Your task to perform on an android device: open app "Indeed Job Search" (install if not already installed), go to login, and select forgot password Image 0: 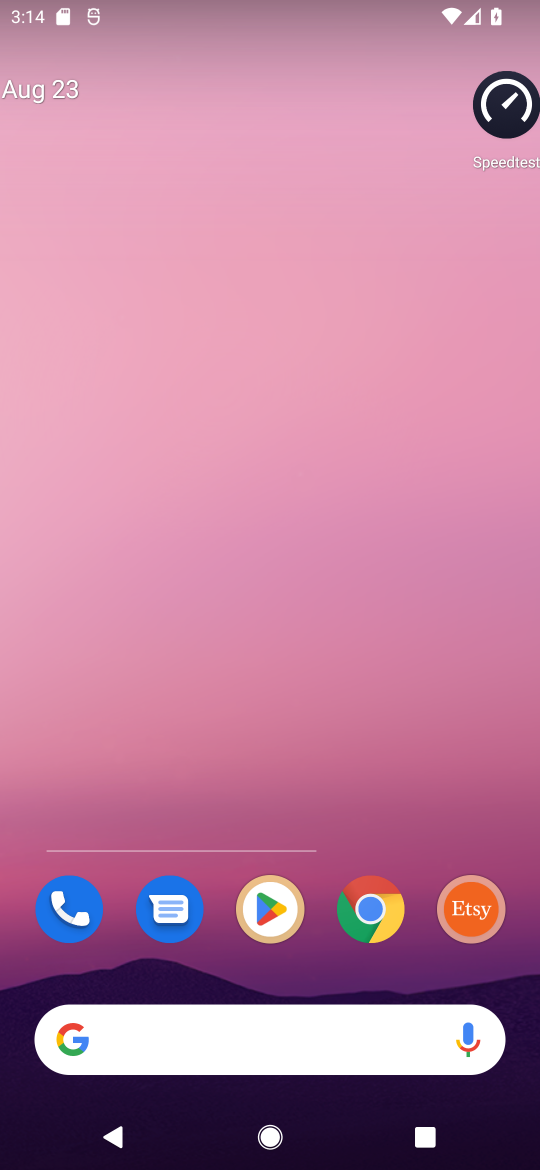
Step 0: press home button
Your task to perform on an android device: open app "Indeed Job Search" (install if not already installed), go to login, and select forgot password Image 1: 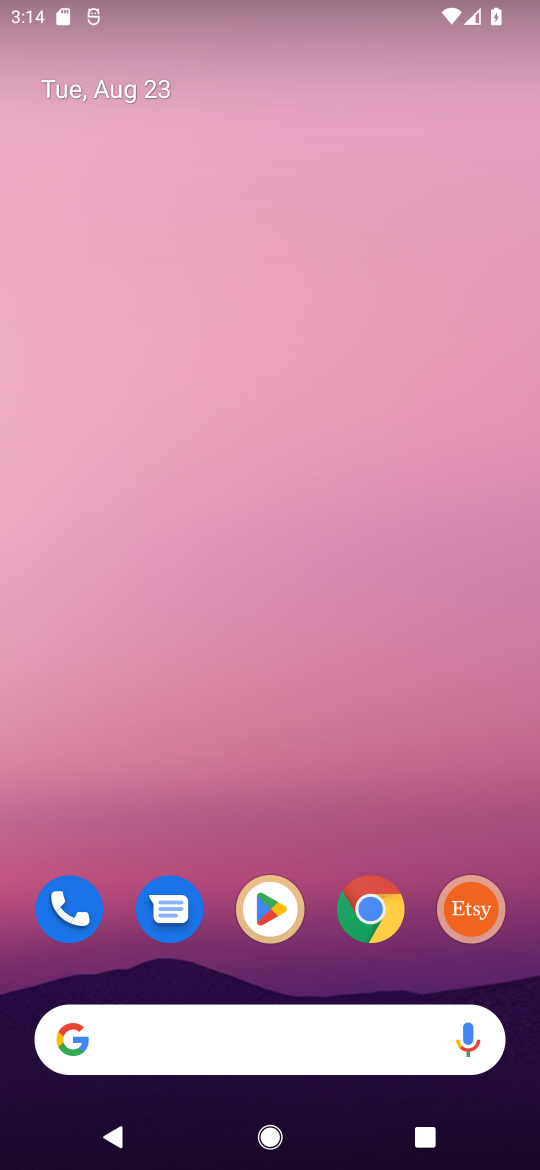
Step 1: click (262, 898)
Your task to perform on an android device: open app "Indeed Job Search" (install if not already installed), go to login, and select forgot password Image 2: 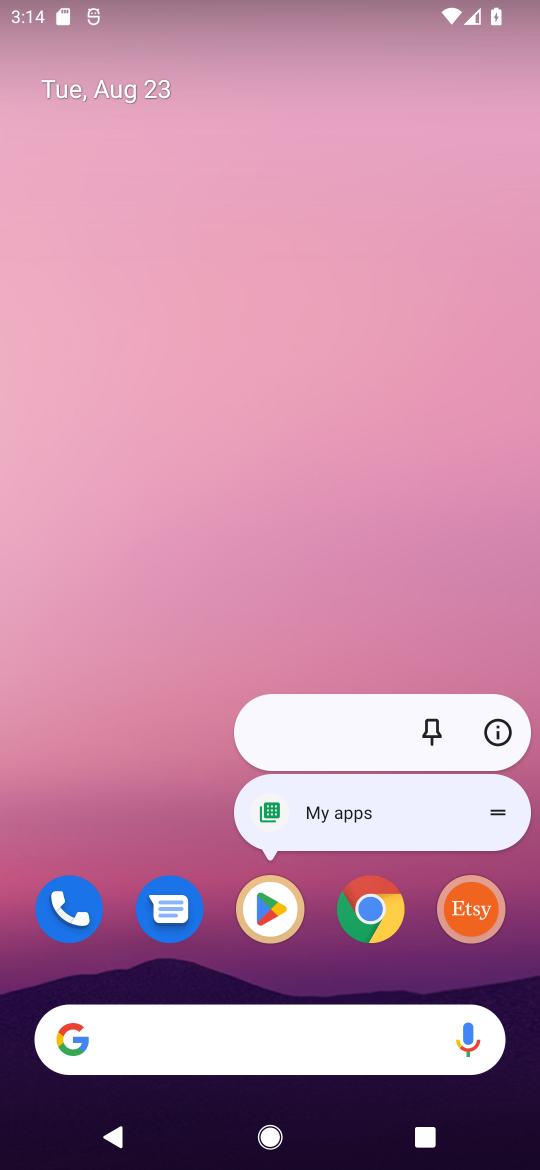
Step 2: click (266, 900)
Your task to perform on an android device: open app "Indeed Job Search" (install if not already installed), go to login, and select forgot password Image 3: 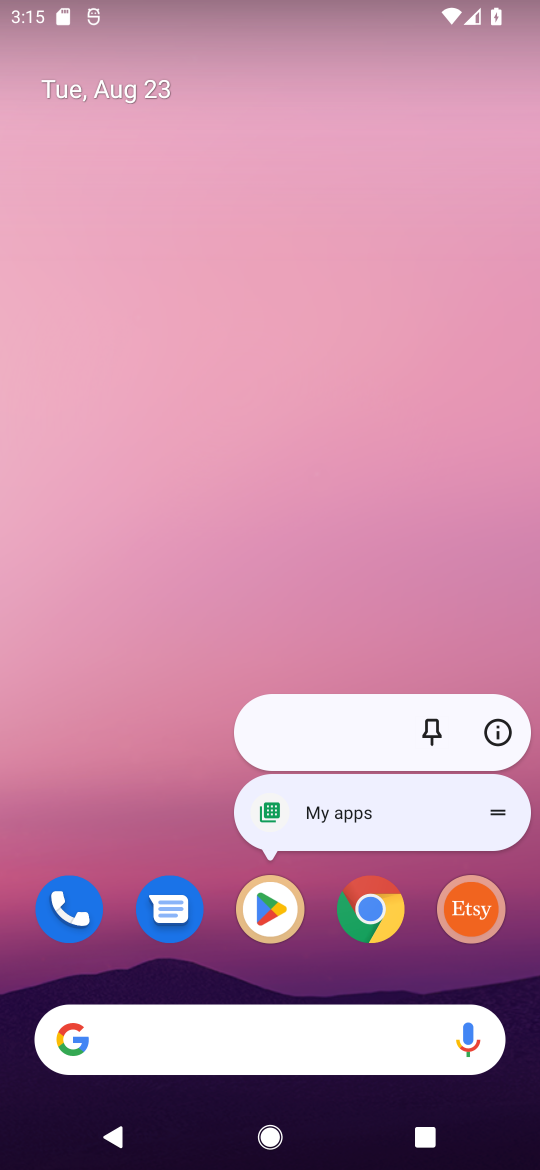
Step 3: click (261, 902)
Your task to perform on an android device: open app "Indeed Job Search" (install if not already installed), go to login, and select forgot password Image 4: 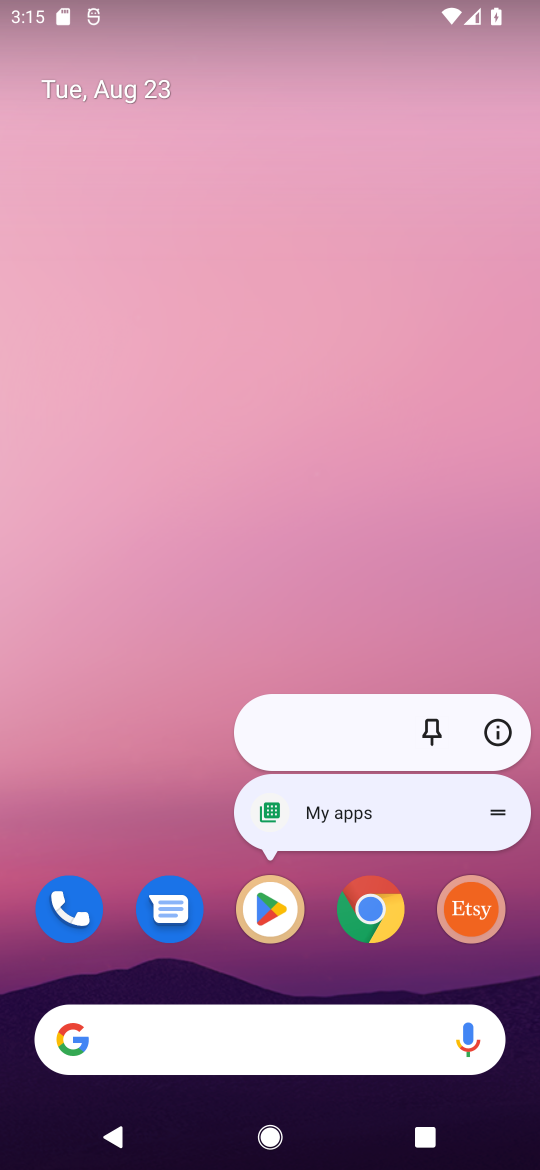
Step 4: click (263, 900)
Your task to perform on an android device: open app "Indeed Job Search" (install if not already installed), go to login, and select forgot password Image 5: 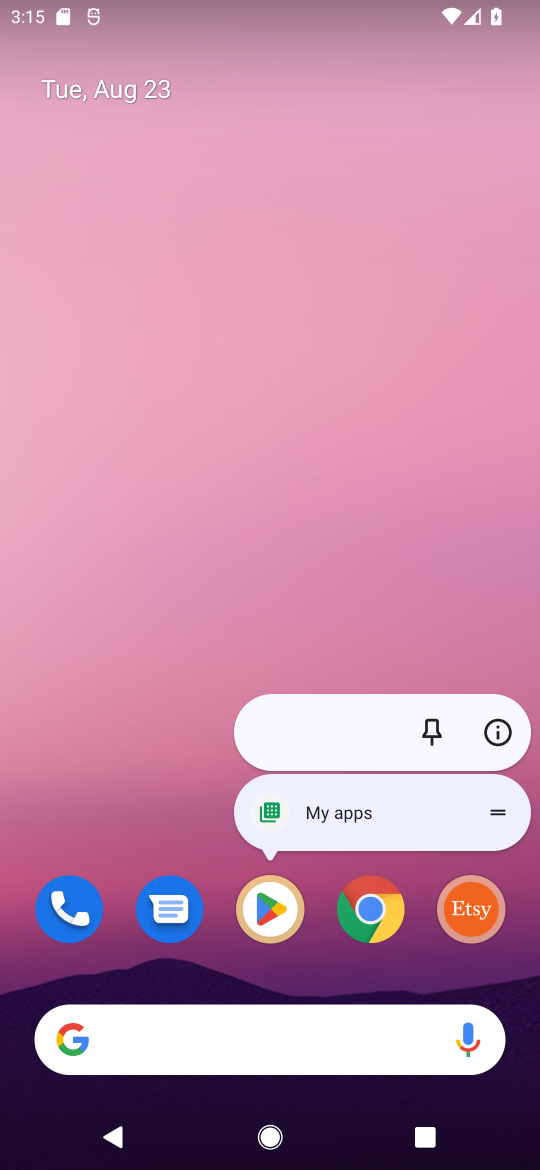
Step 5: click (133, 704)
Your task to perform on an android device: open app "Indeed Job Search" (install if not already installed), go to login, and select forgot password Image 6: 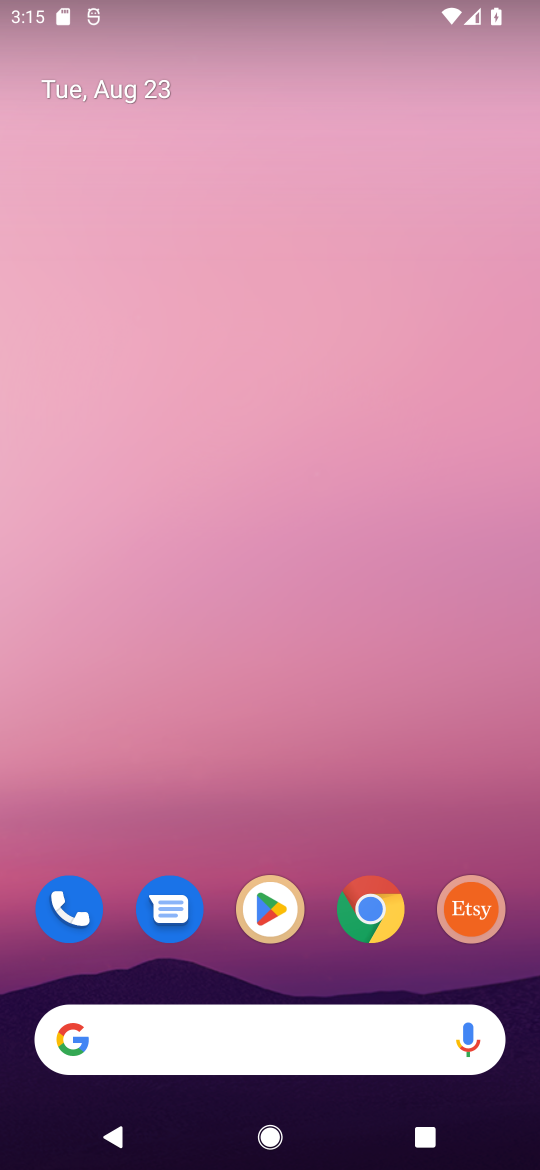
Step 6: click (237, 339)
Your task to perform on an android device: open app "Indeed Job Search" (install if not already installed), go to login, and select forgot password Image 7: 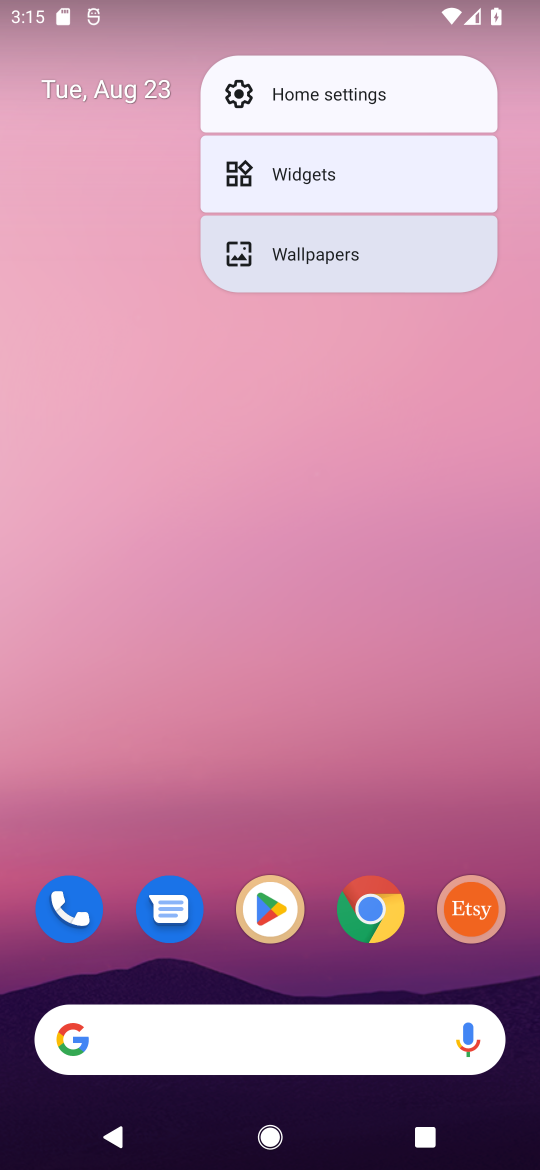
Step 7: click (262, 903)
Your task to perform on an android device: open app "Indeed Job Search" (install if not already installed), go to login, and select forgot password Image 8: 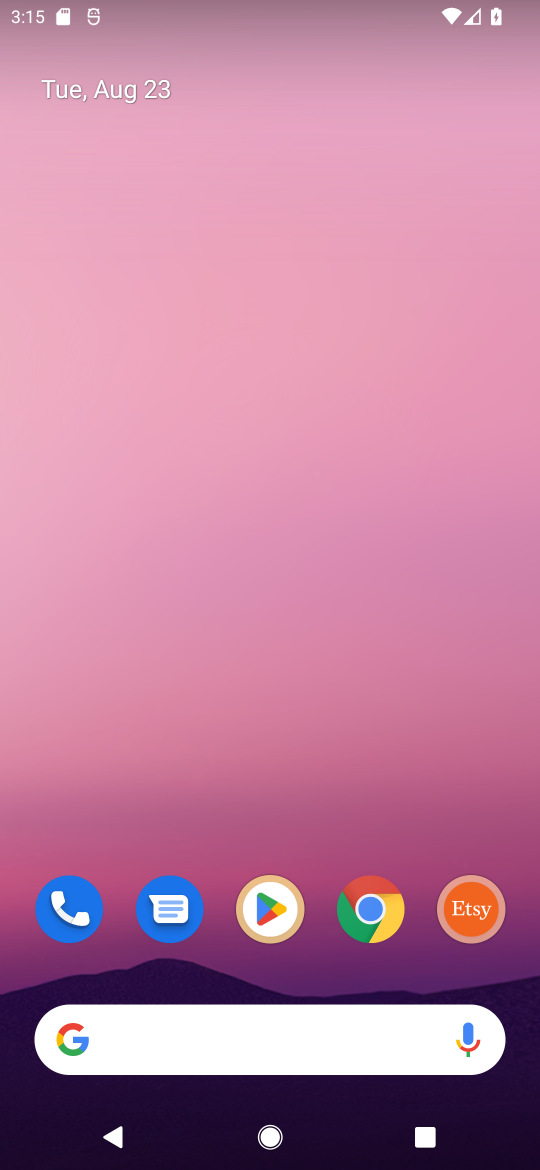
Step 8: click (261, 903)
Your task to perform on an android device: open app "Indeed Job Search" (install if not already installed), go to login, and select forgot password Image 9: 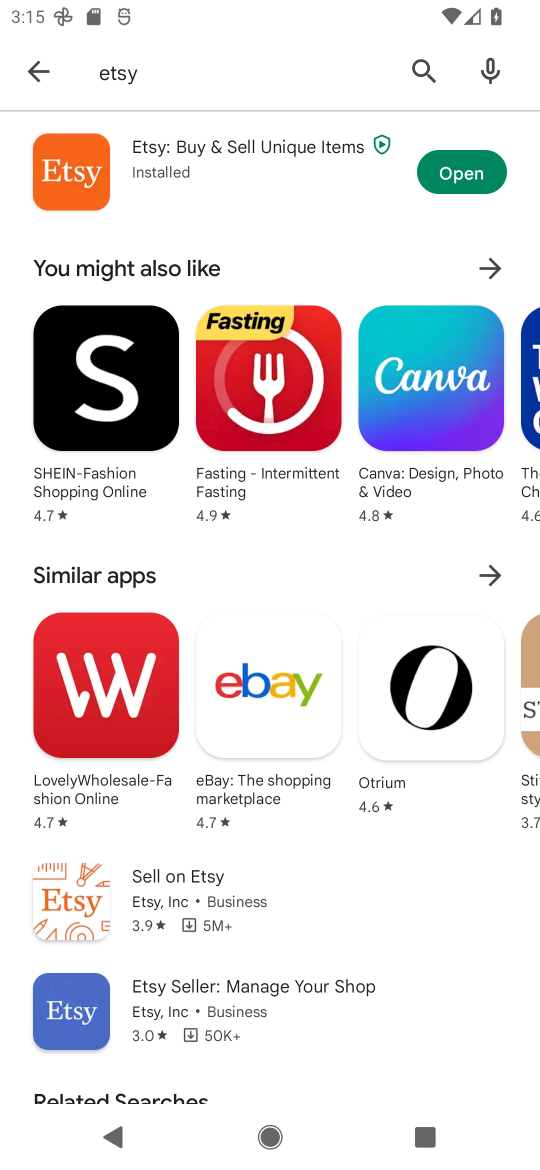
Step 9: click (418, 67)
Your task to perform on an android device: open app "Indeed Job Search" (install if not already installed), go to login, and select forgot password Image 10: 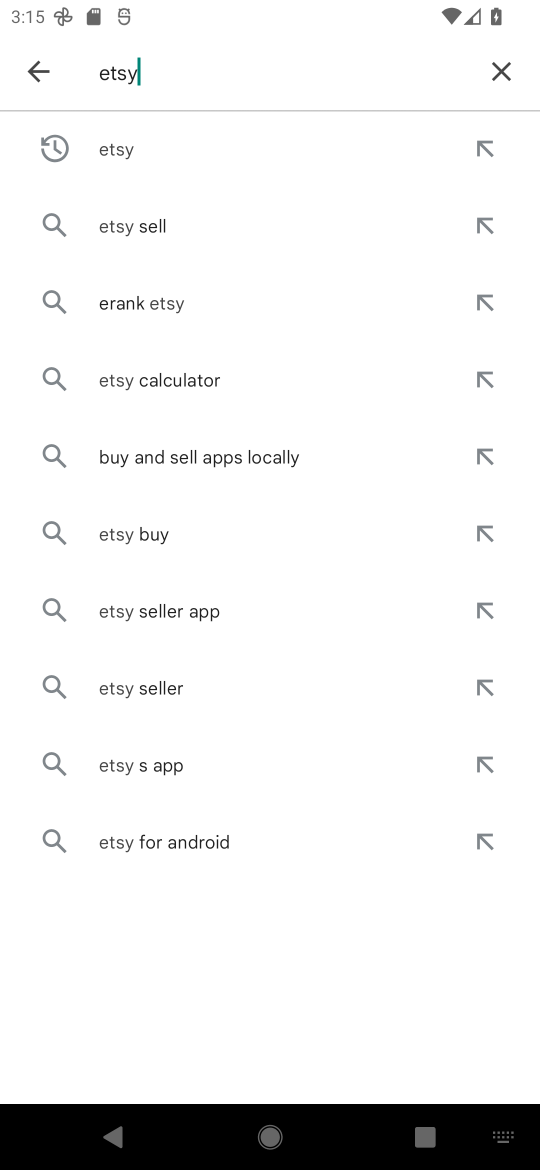
Step 10: click (495, 64)
Your task to perform on an android device: open app "Indeed Job Search" (install if not already installed), go to login, and select forgot password Image 11: 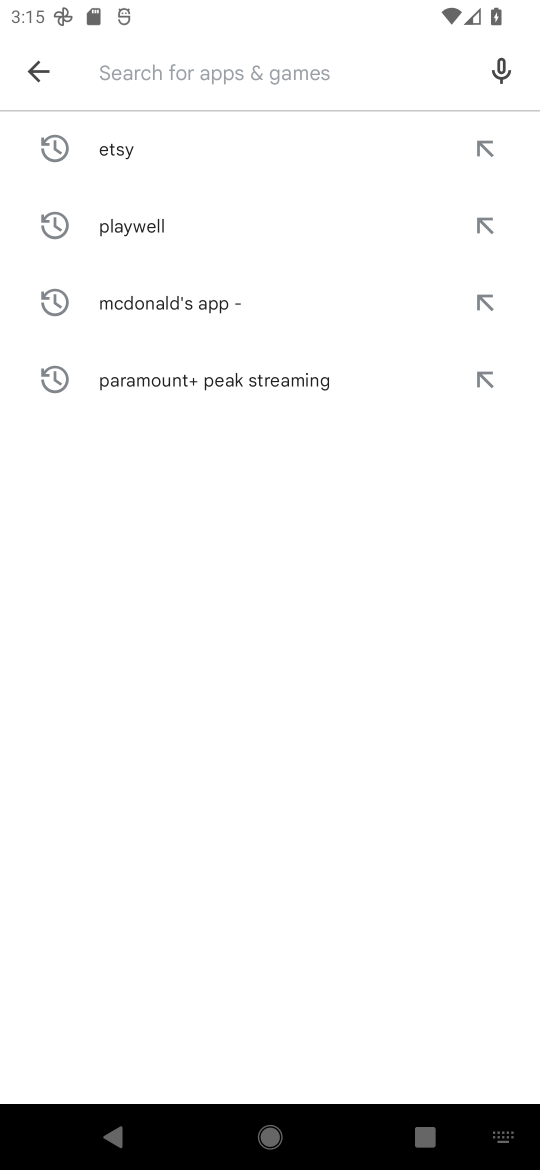
Step 11: type "Indeed Job Search"
Your task to perform on an android device: open app "Indeed Job Search" (install if not already installed), go to login, and select forgot password Image 12: 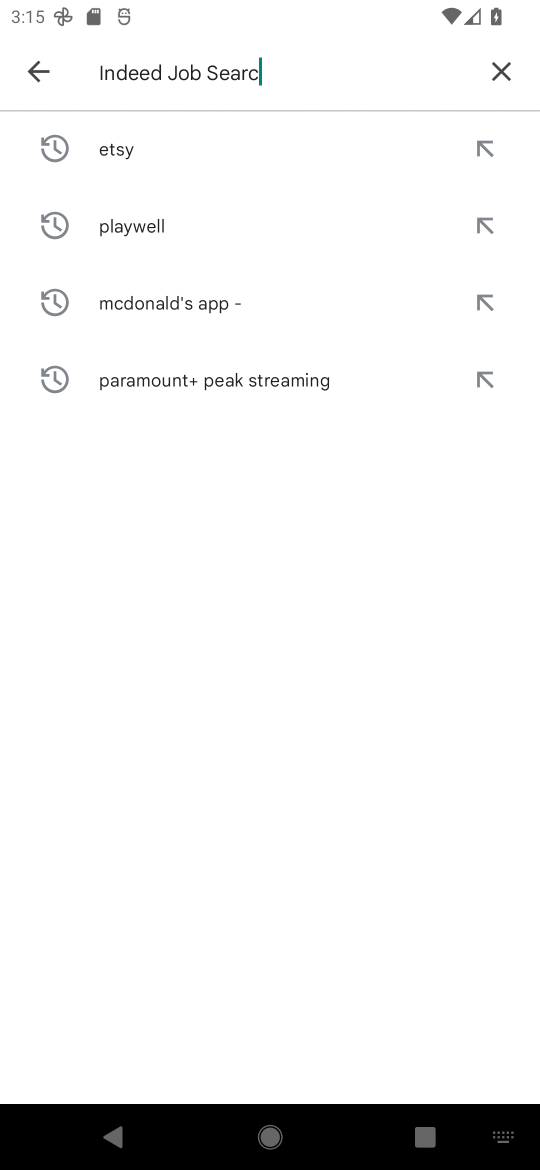
Step 12: type ""
Your task to perform on an android device: open app "Indeed Job Search" (install if not already installed), go to login, and select forgot password Image 13: 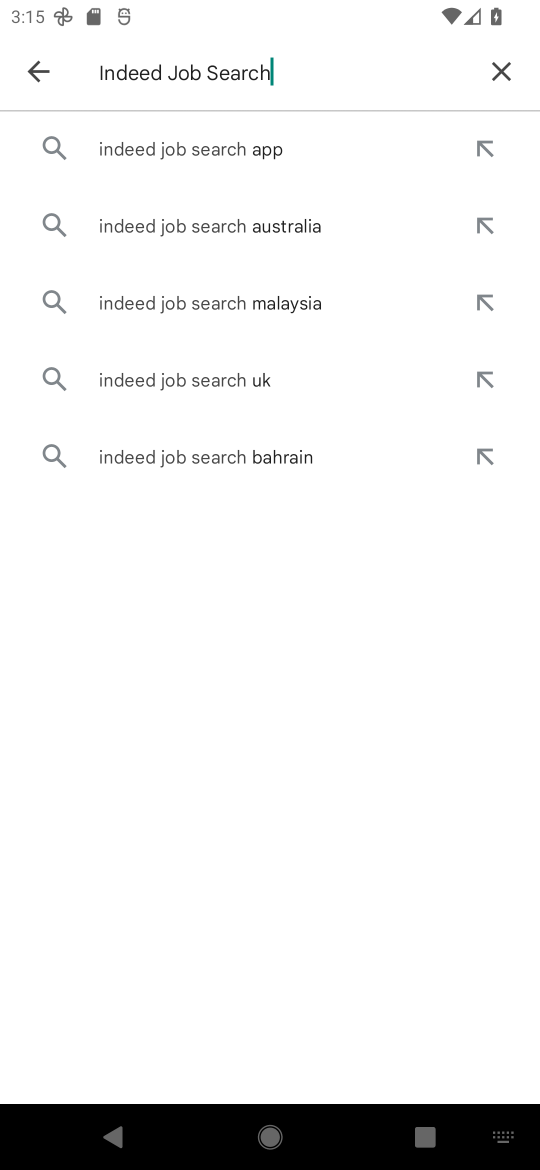
Step 13: click (288, 145)
Your task to perform on an android device: open app "Indeed Job Search" (install if not already installed), go to login, and select forgot password Image 14: 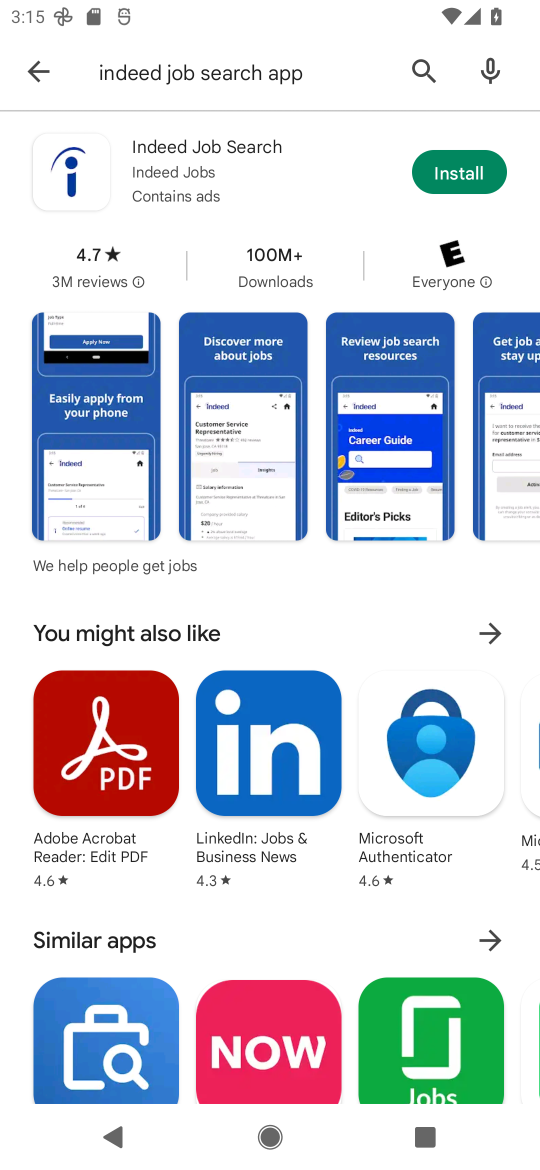
Step 14: click (458, 166)
Your task to perform on an android device: open app "Indeed Job Search" (install if not already installed), go to login, and select forgot password Image 15: 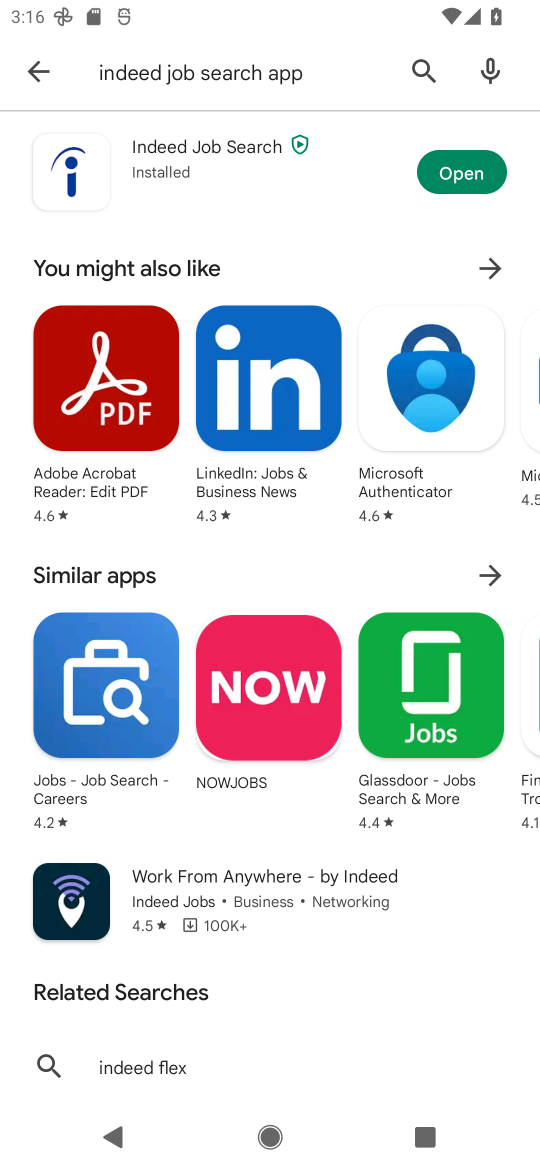
Step 15: click (458, 169)
Your task to perform on an android device: open app "Indeed Job Search" (install if not already installed), go to login, and select forgot password Image 16: 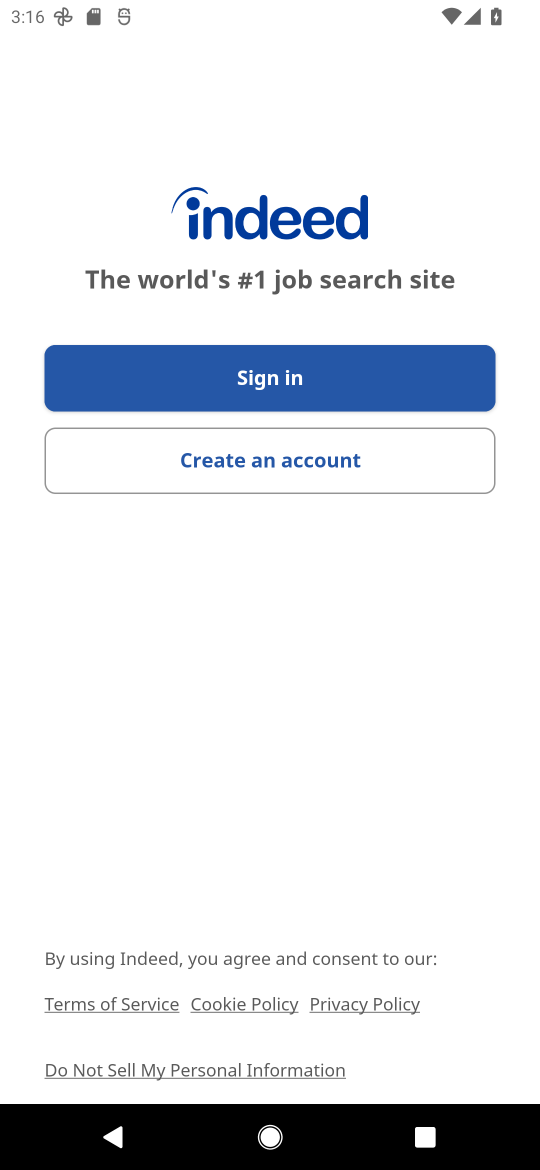
Step 16: click (270, 371)
Your task to perform on an android device: open app "Indeed Job Search" (install if not already installed), go to login, and select forgot password Image 17: 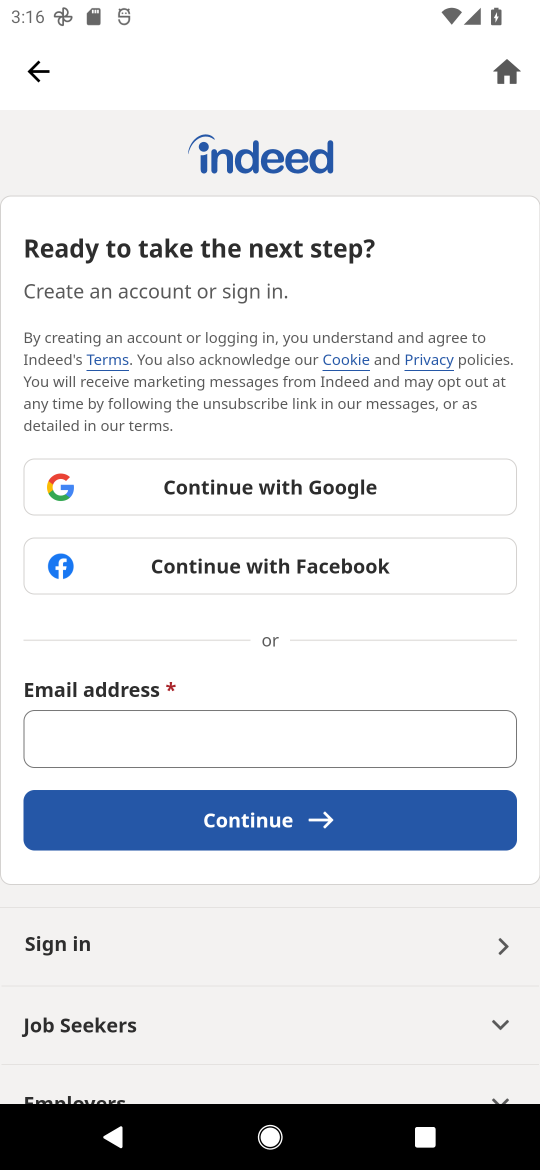
Step 17: click (253, 479)
Your task to perform on an android device: open app "Indeed Job Search" (install if not already installed), go to login, and select forgot password Image 18: 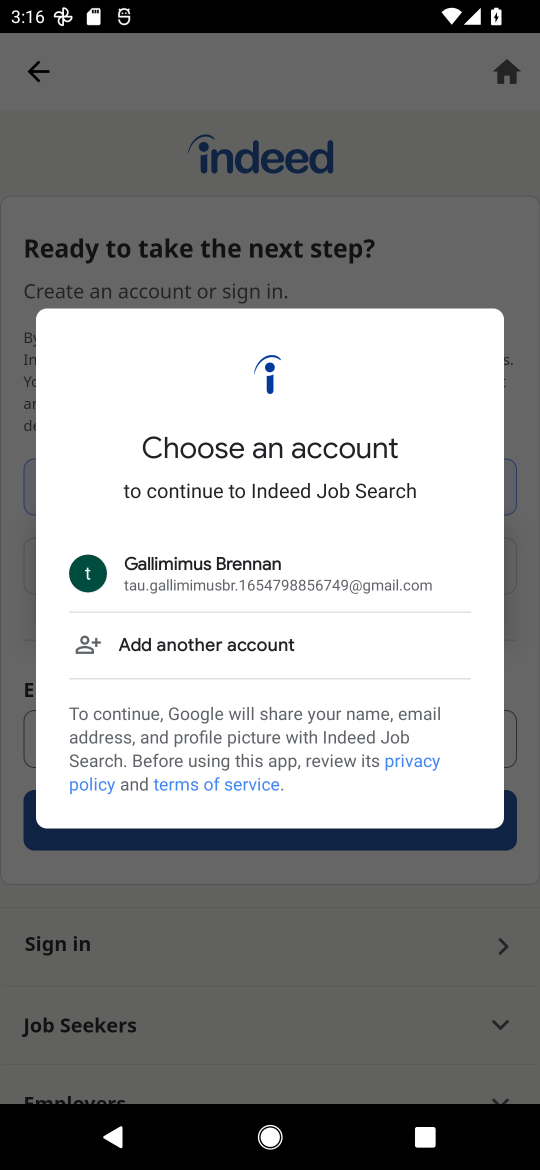
Step 18: click (164, 575)
Your task to perform on an android device: open app "Indeed Job Search" (install if not already installed), go to login, and select forgot password Image 19: 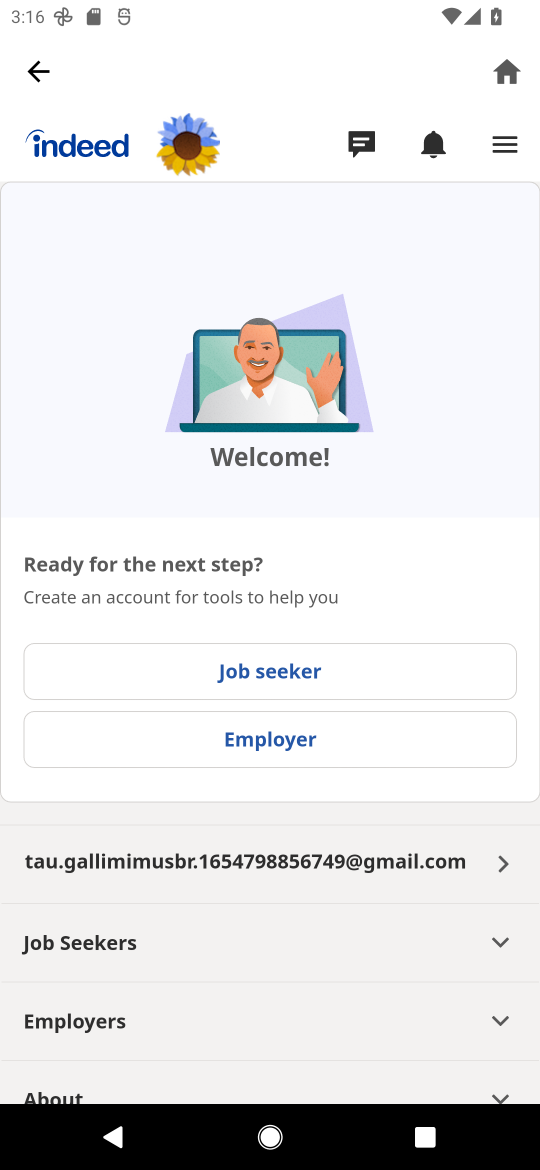
Step 19: click (503, 135)
Your task to perform on an android device: open app "Indeed Job Search" (install if not already installed), go to login, and select forgot password Image 20: 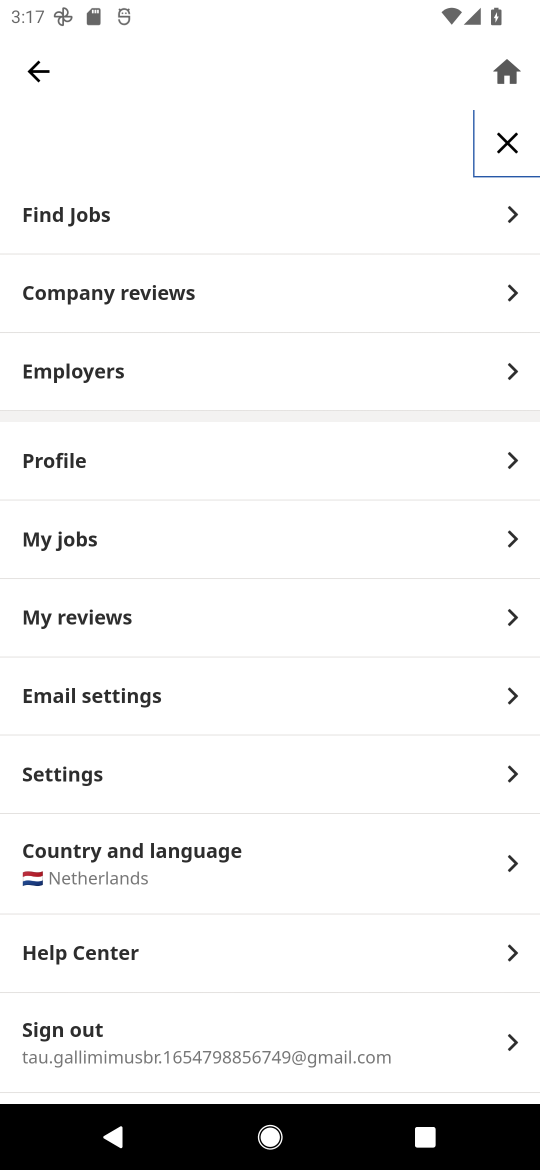
Step 20: click (506, 771)
Your task to perform on an android device: open app "Indeed Job Search" (install if not already installed), go to login, and select forgot password Image 21: 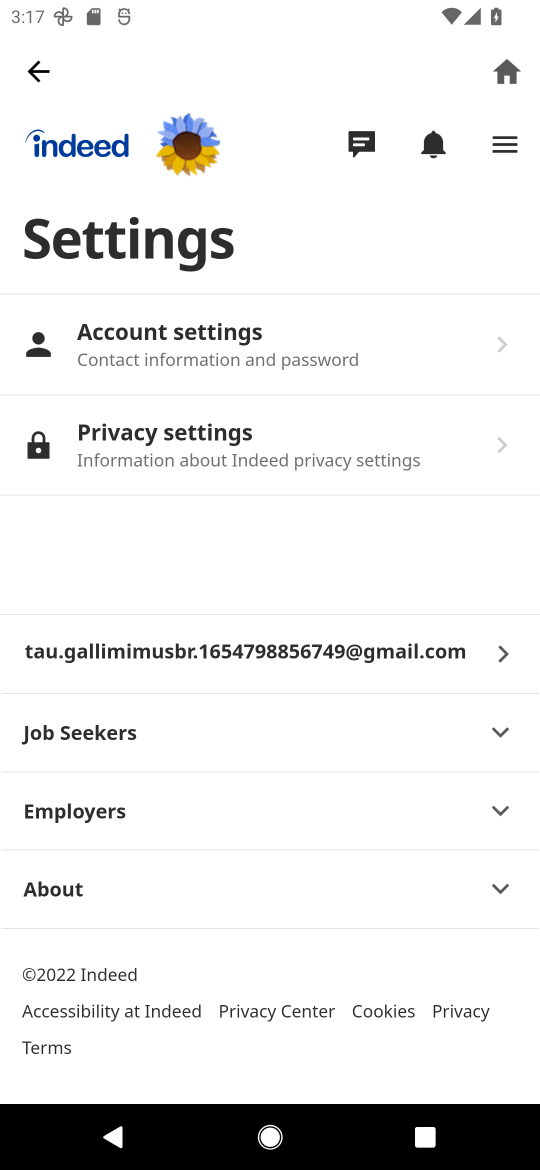
Step 21: task complete